Your task to perform on an android device: Do I have any events today? Image 0: 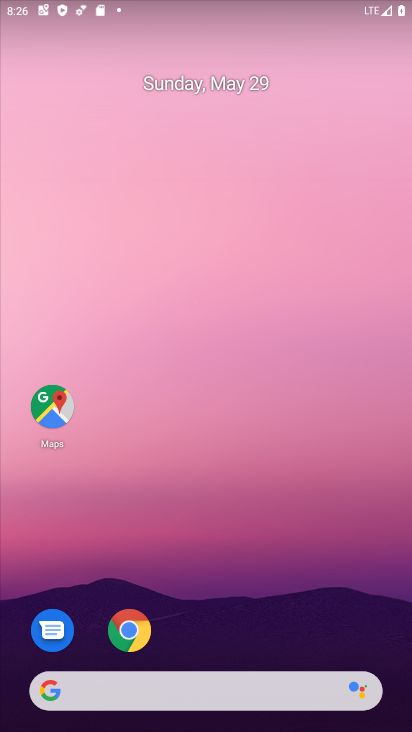
Step 0: drag from (228, 662) to (188, 287)
Your task to perform on an android device: Do I have any events today? Image 1: 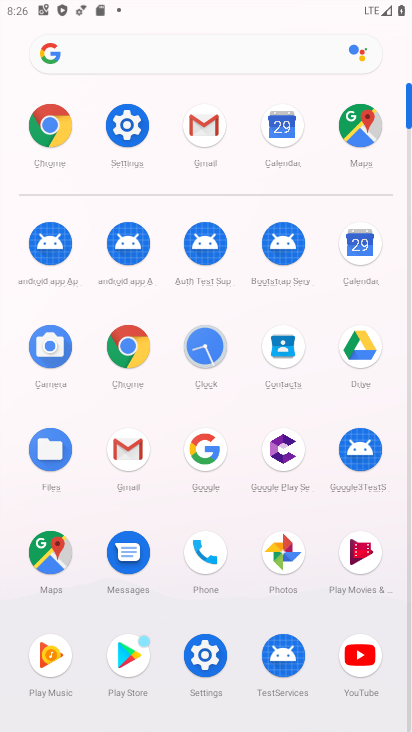
Step 1: click (363, 258)
Your task to perform on an android device: Do I have any events today? Image 2: 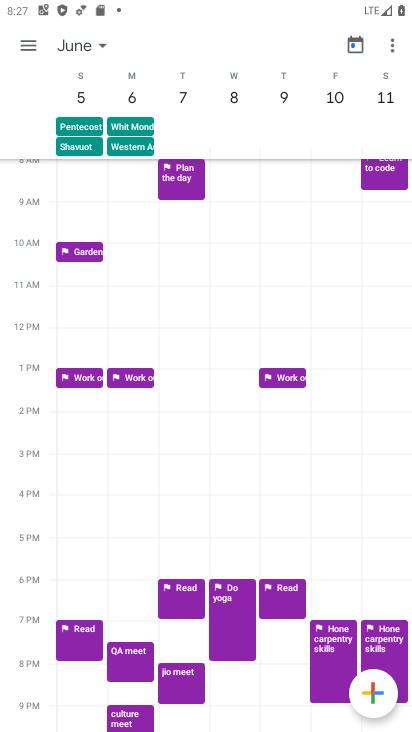
Step 2: click (352, 41)
Your task to perform on an android device: Do I have any events today? Image 3: 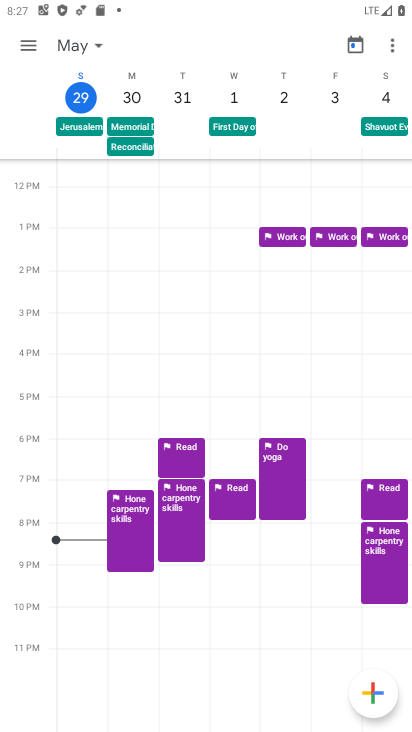
Step 3: click (83, 90)
Your task to perform on an android device: Do I have any events today? Image 4: 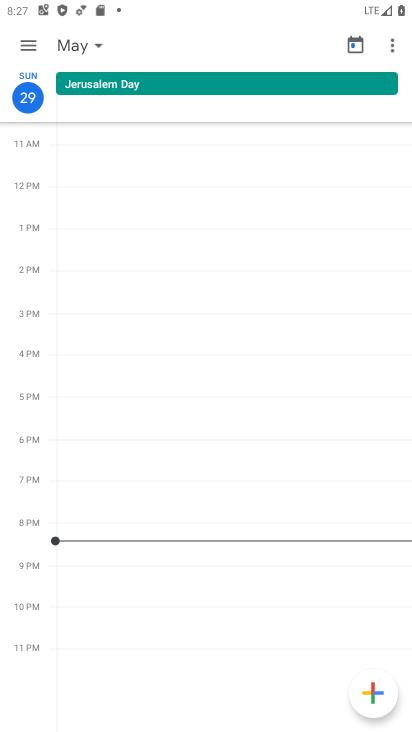
Step 4: task complete